Your task to perform on an android device: change your default location settings in chrome Image 0: 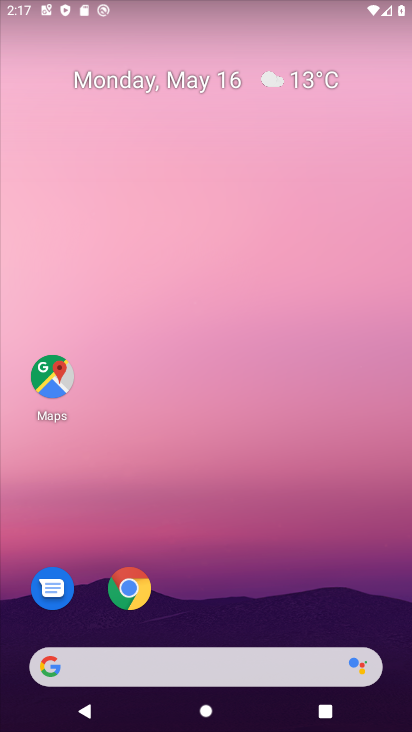
Step 0: drag from (266, 667) to (321, 52)
Your task to perform on an android device: change your default location settings in chrome Image 1: 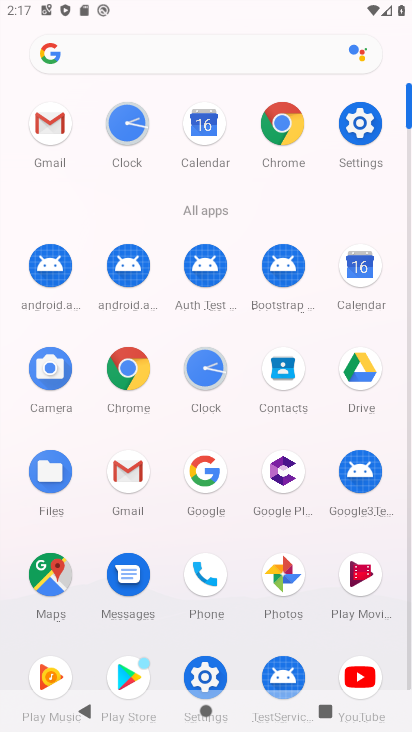
Step 1: click (126, 381)
Your task to perform on an android device: change your default location settings in chrome Image 2: 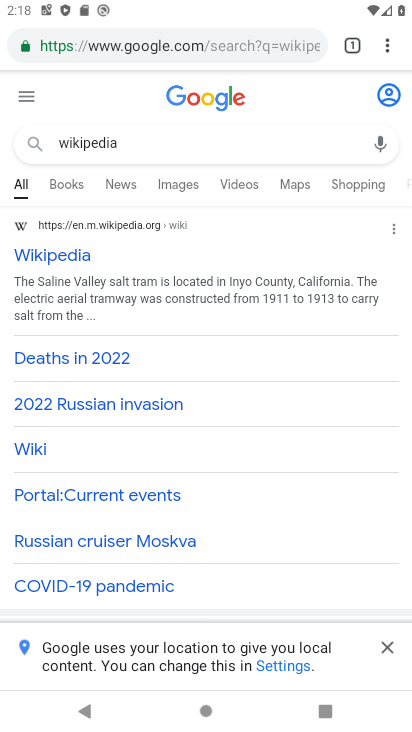
Step 2: click (383, 42)
Your task to perform on an android device: change your default location settings in chrome Image 3: 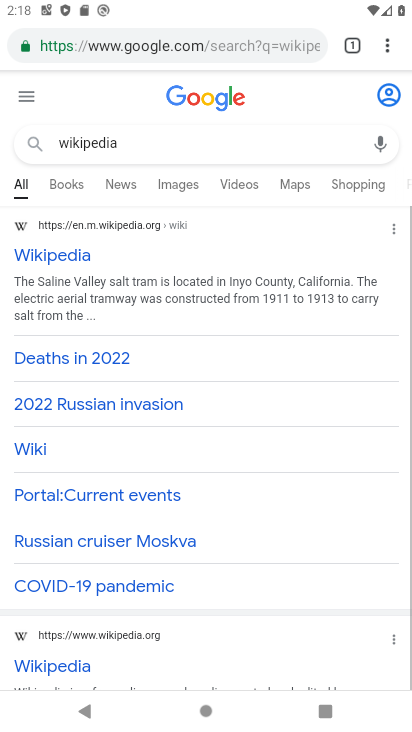
Step 3: drag from (384, 39) to (249, 511)
Your task to perform on an android device: change your default location settings in chrome Image 4: 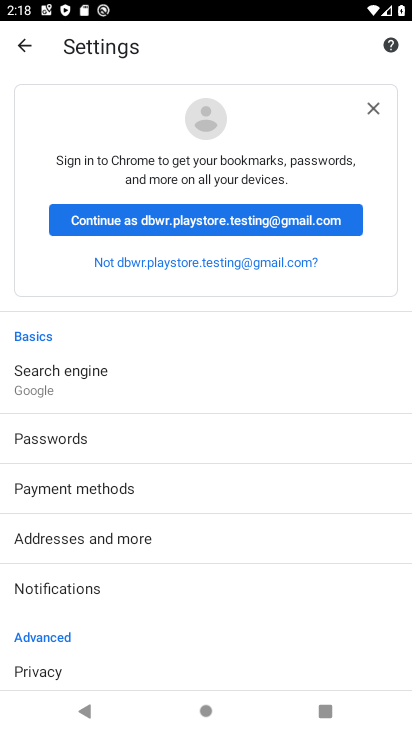
Step 4: drag from (123, 677) to (153, 172)
Your task to perform on an android device: change your default location settings in chrome Image 5: 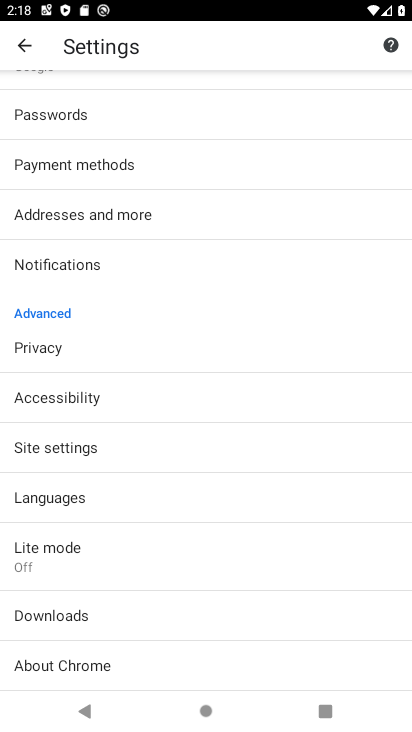
Step 5: click (91, 453)
Your task to perform on an android device: change your default location settings in chrome Image 6: 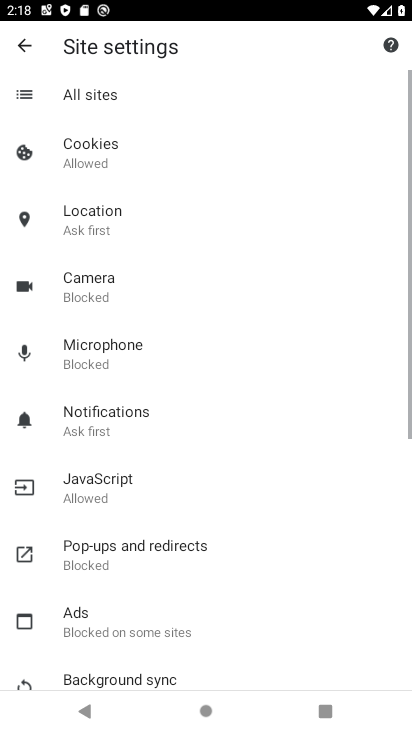
Step 6: drag from (216, 596) to (269, 664)
Your task to perform on an android device: change your default location settings in chrome Image 7: 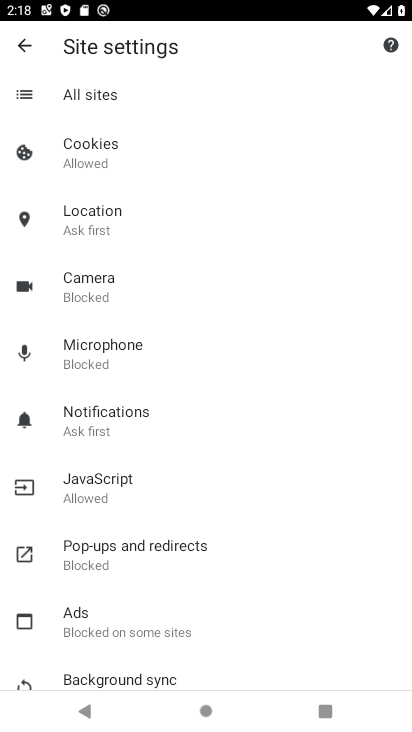
Step 7: click (132, 217)
Your task to perform on an android device: change your default location settings in chrome Image 8: 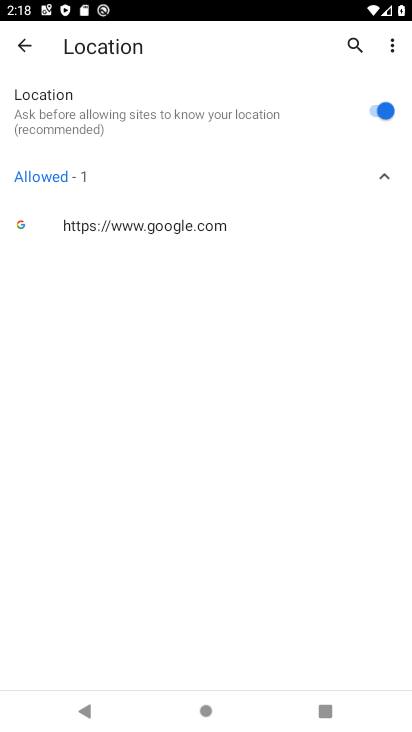
Step 8: task complete